Your task to perform on an android device: Go to Reddit.com Image 0: 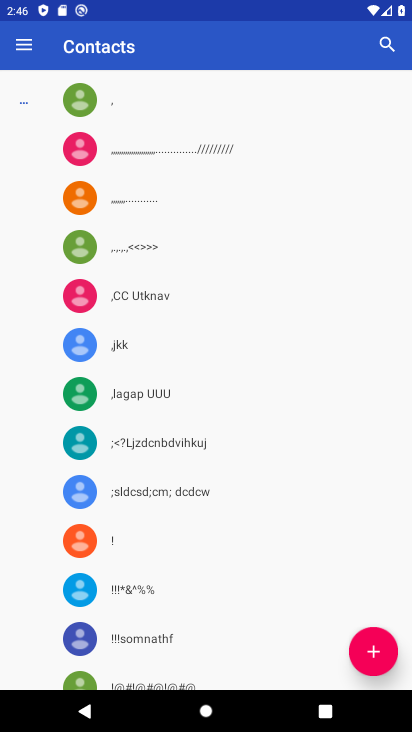
Step 0: press home button
Your task to perform on an android device: Go to Reddit.com Image 1: 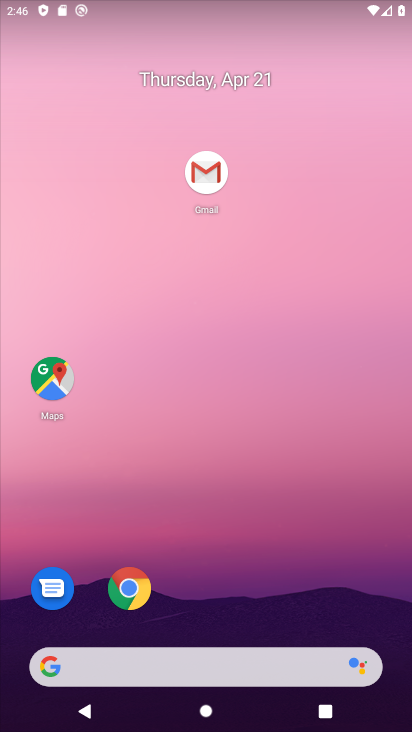
Step 1: drag from (188, 613) to (188, 69)
Your task to perform on an android device: Go to Reddit.com Image 2: 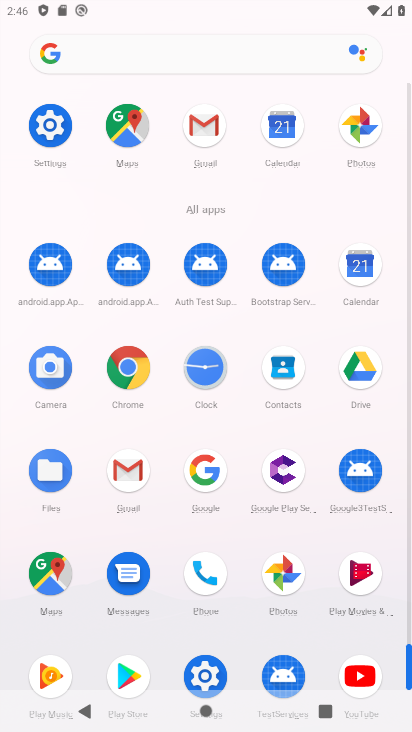
Step 2: click (132, 364)
Your task to perform on an android device: Go to Reddit.com Image 3: 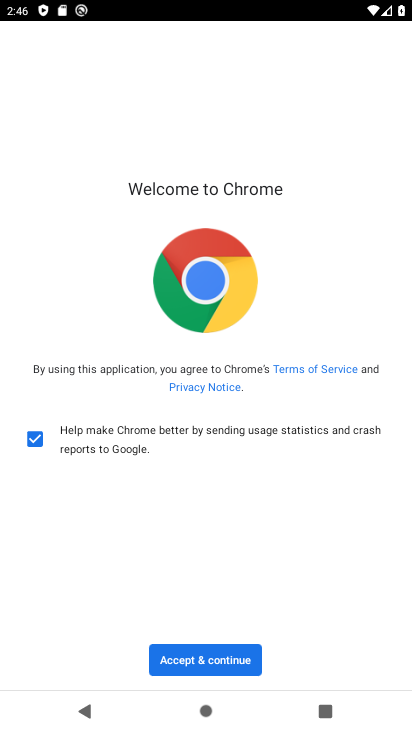
Step 3: click (216, 661)
Your task to perform on an android device: Go to Reddit.com Image 4: 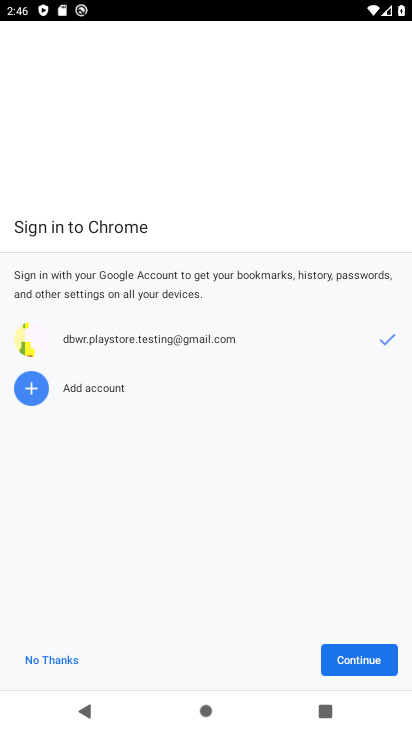
Step 4: click (349, 655)
Your task to perform on an android device: Go to Reddit.com Image 5: 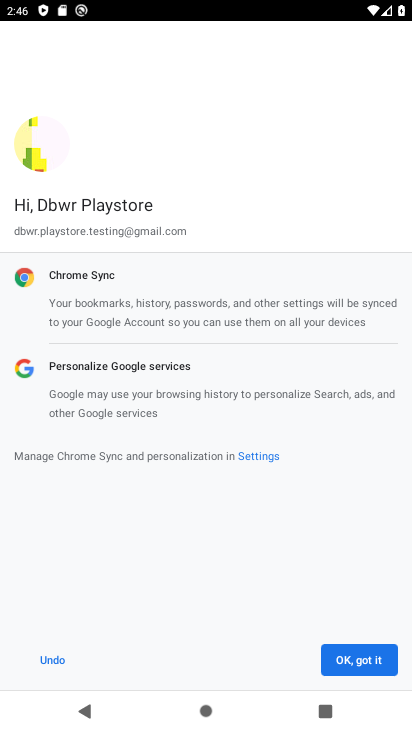
Step 5: click (349, 655)
Your task to perform on an android device: Go to Reddit.com Image 6: 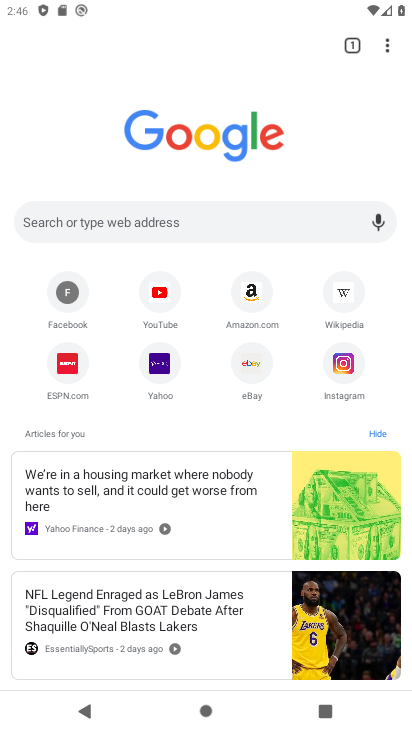
Step 6: click (152, 225)
Your task to perform on an android device: Go to Reddit.com Image 7: 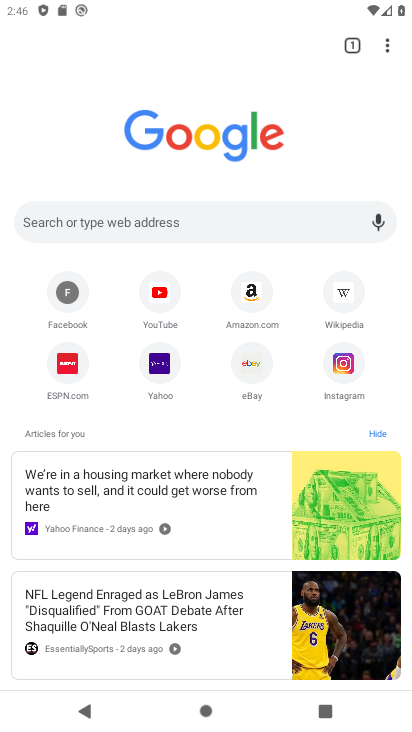
Step 7: click (79, 224)
Your task to perform on an android device: Go to Reddit.com Image 8: 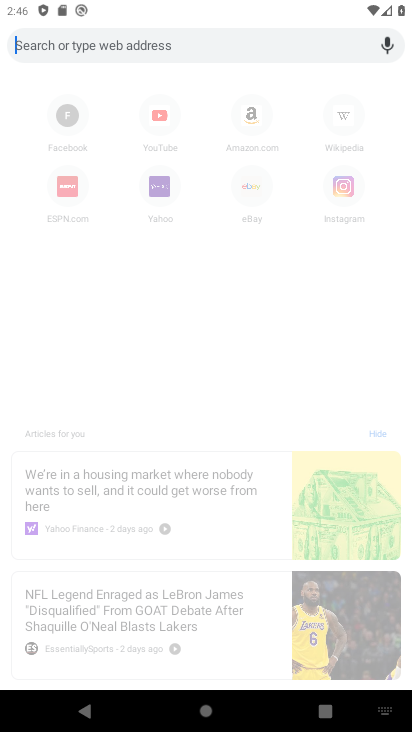
Step 8: type " Reddit.com"
Your task to perform on an android device: Go to Reddit.com Image 9: 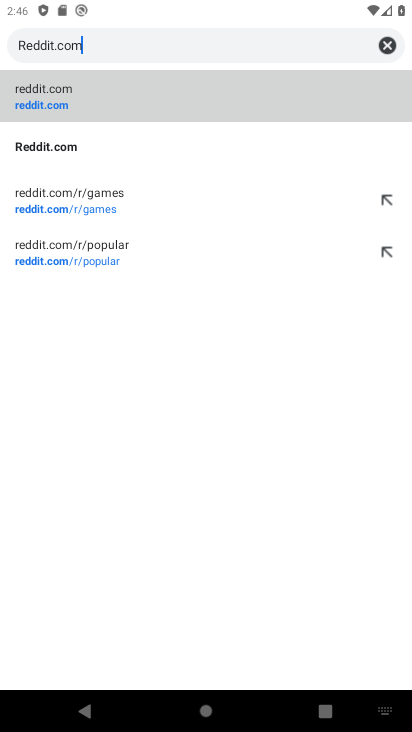
Step 9: click (36, 104)
Your task to perform on an android device: Go to Reddit.com Image 10: 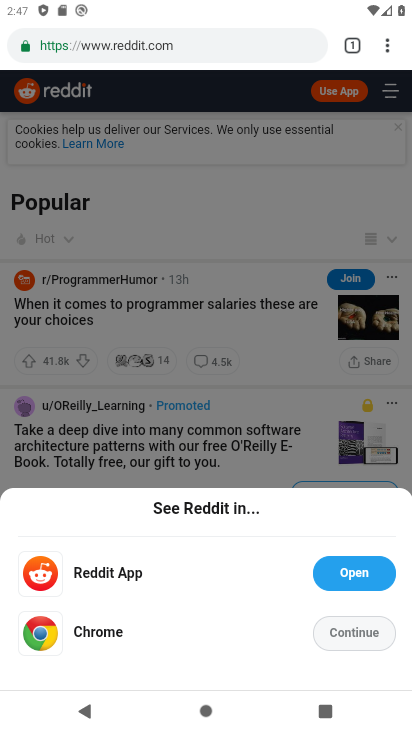
Step 10: task complete